Your task to perform on an android device: Add razer blade to the cart on walmart.com Image 0: 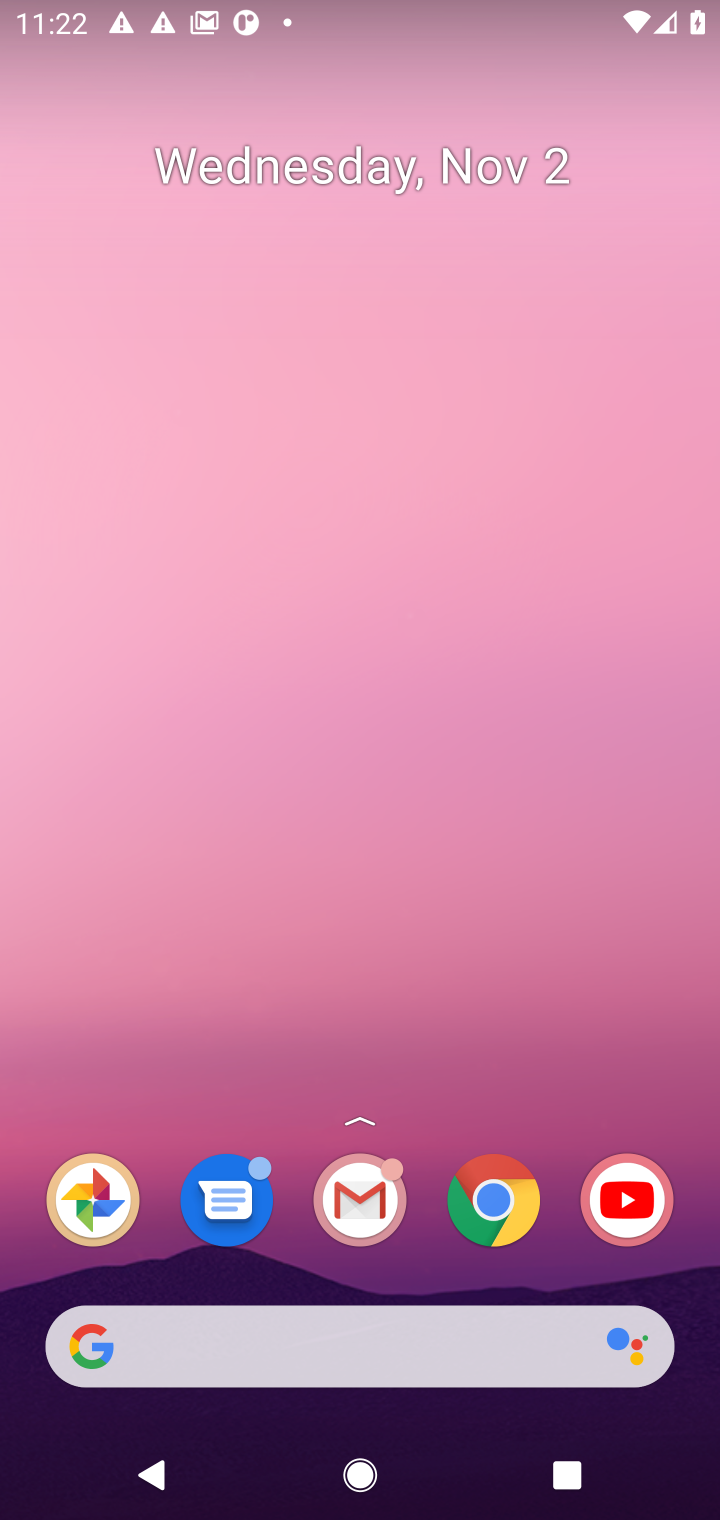
Step 0: click (490, 1195)
Your task to perform on an android device: Add razer blade to the cart on walmart.com Image 1: 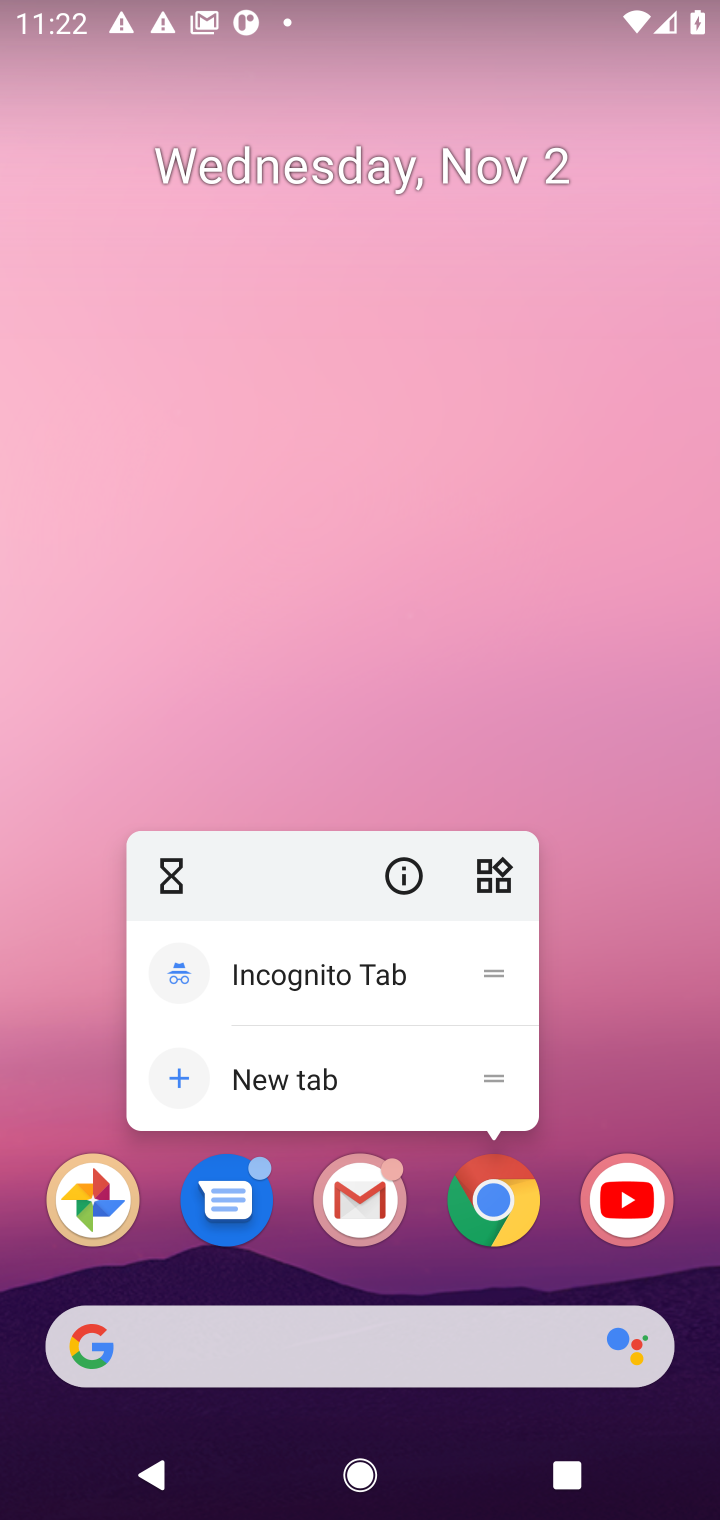
Step 1: click (489, 1193)
Your task to perform on an android device: Add razer blade to the cart on walmart.com Image 2: 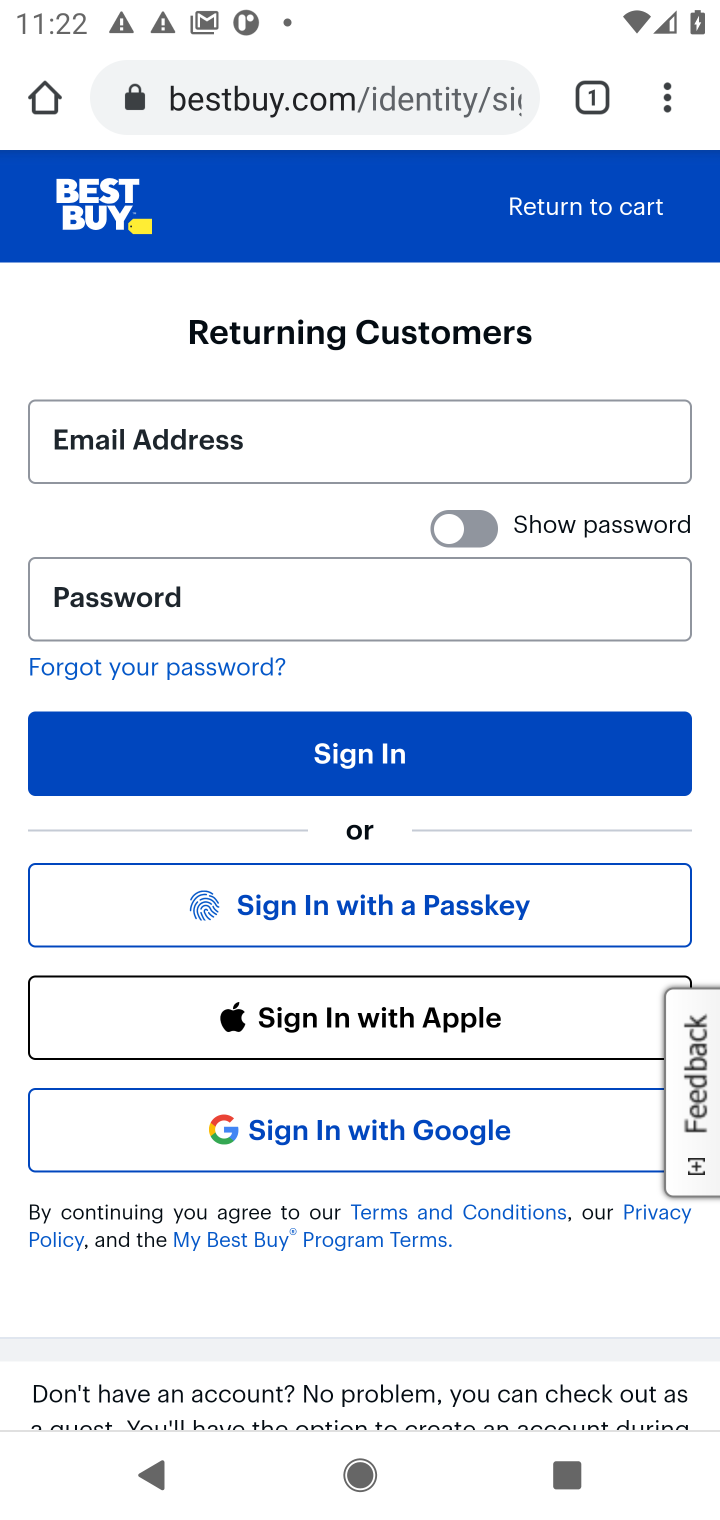
Step 2: click (339, 88)
Your task to perform on an android device: Add razer blade to the cart on walmart.com Image 3: 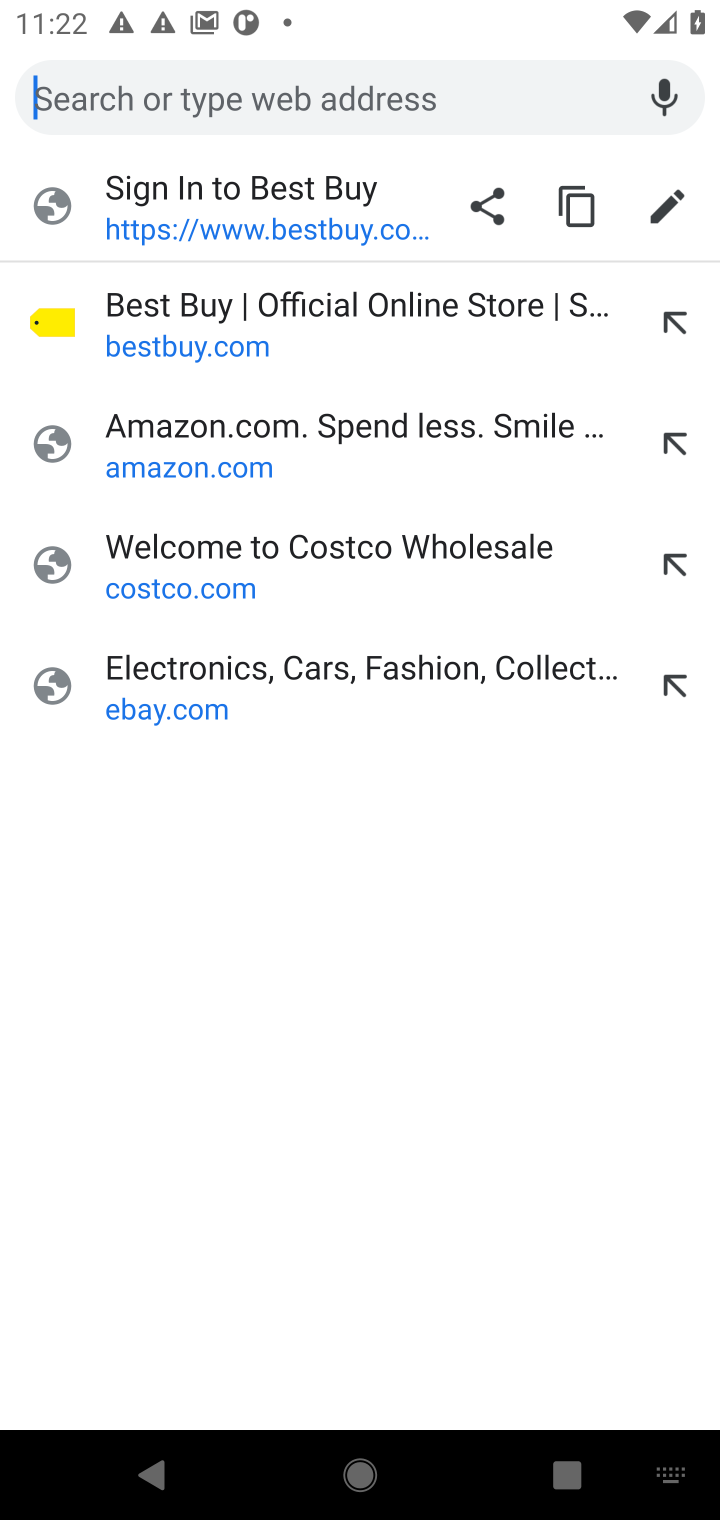
Step 3: type "walmart.com"
Your task to perform on an android device: Add razer blade to the cart on walmart.com Image 4: 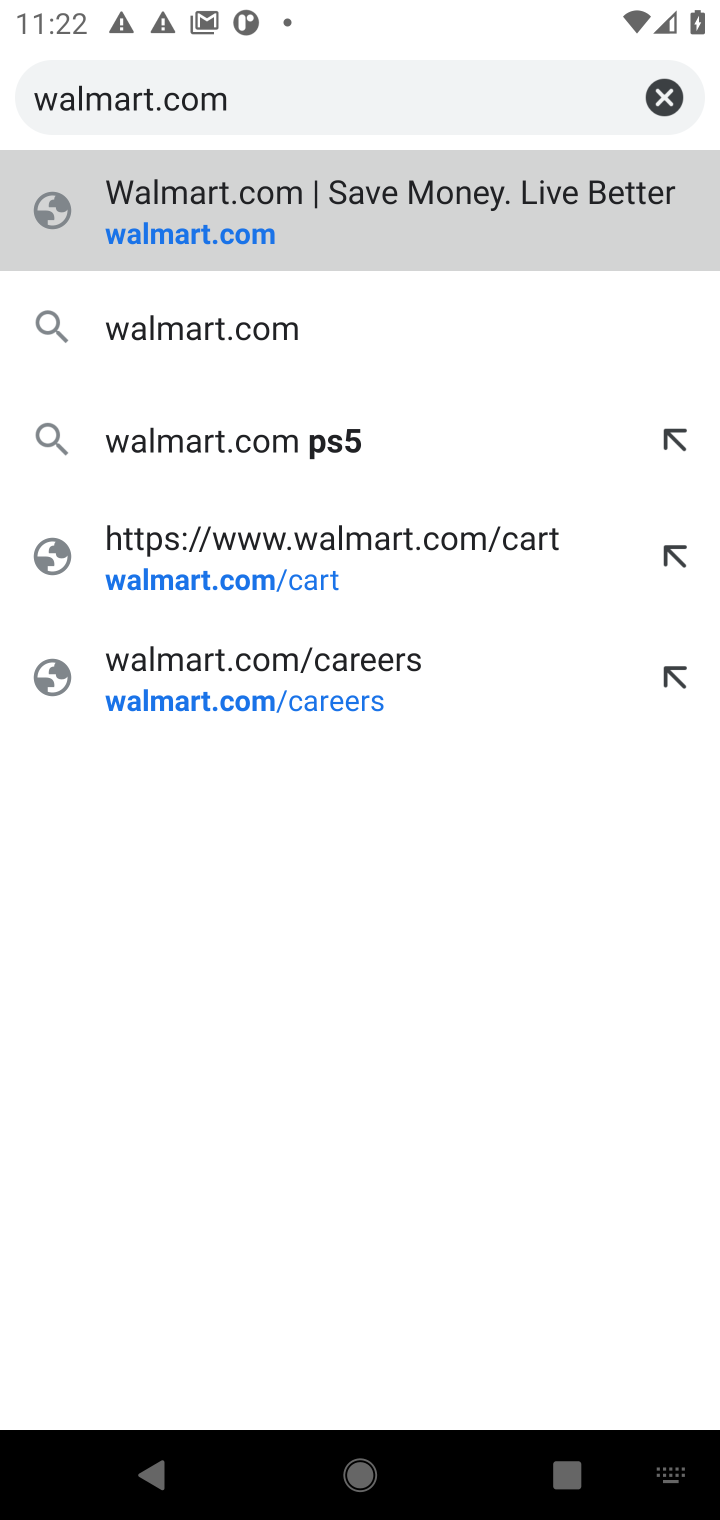
Step 4: press enter
Your task to perform on an android device: Add razer blade to the cart on walmart.com Image 5: 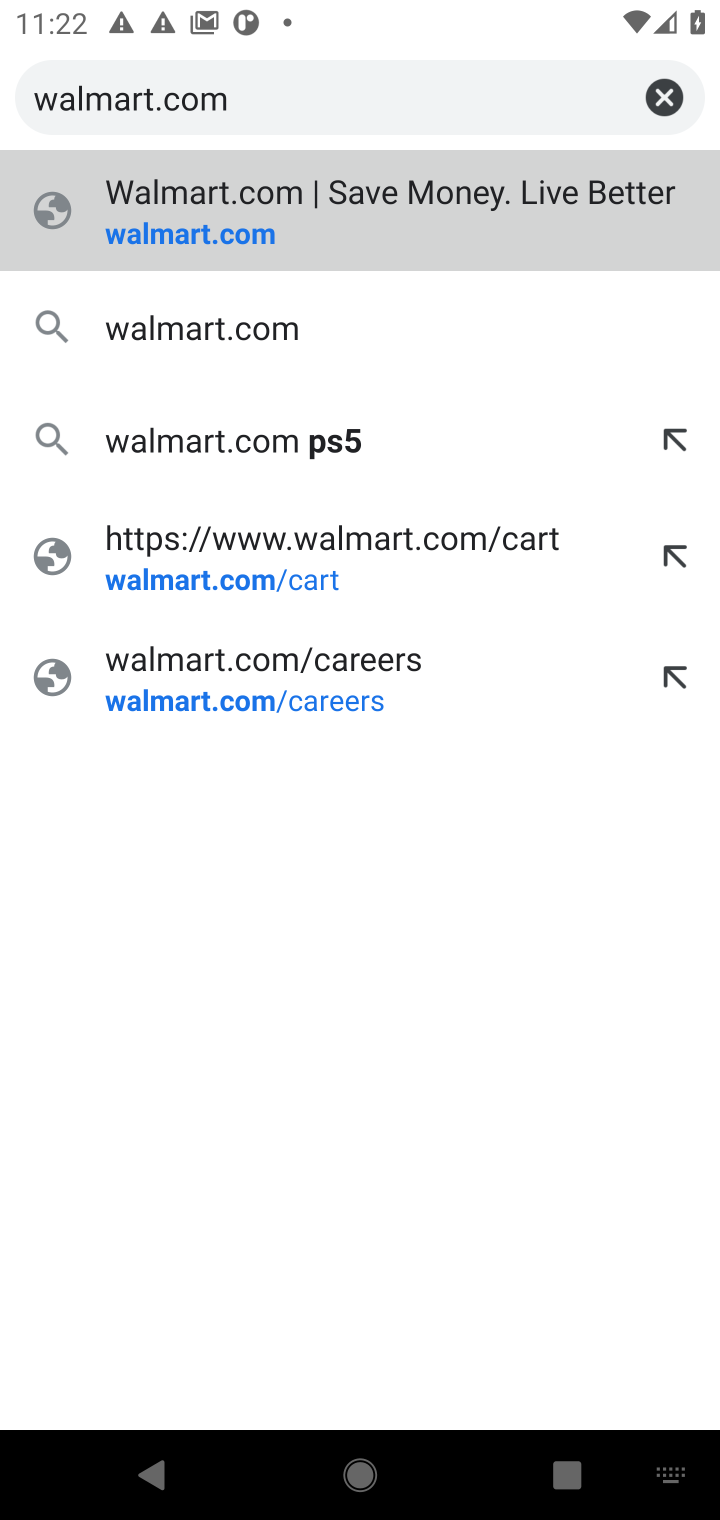
Step 5: type "walmart.com"
Your task to perform on an android device: Add razer blade to the cart on walmart.com Image 6: 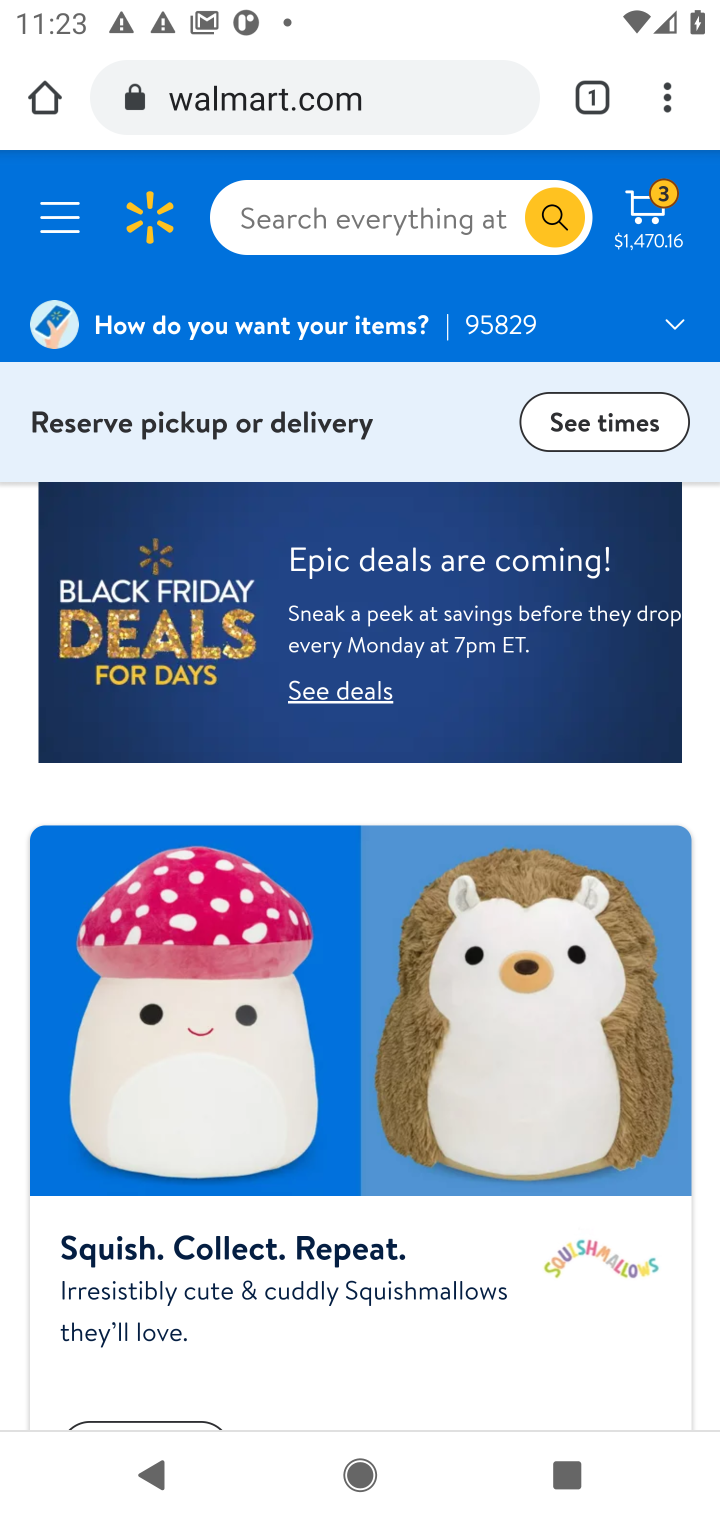
Step 6: click (302, 207)
Your task to perform on an android device: Add razer blade to the cart on walmart.com Image 7: 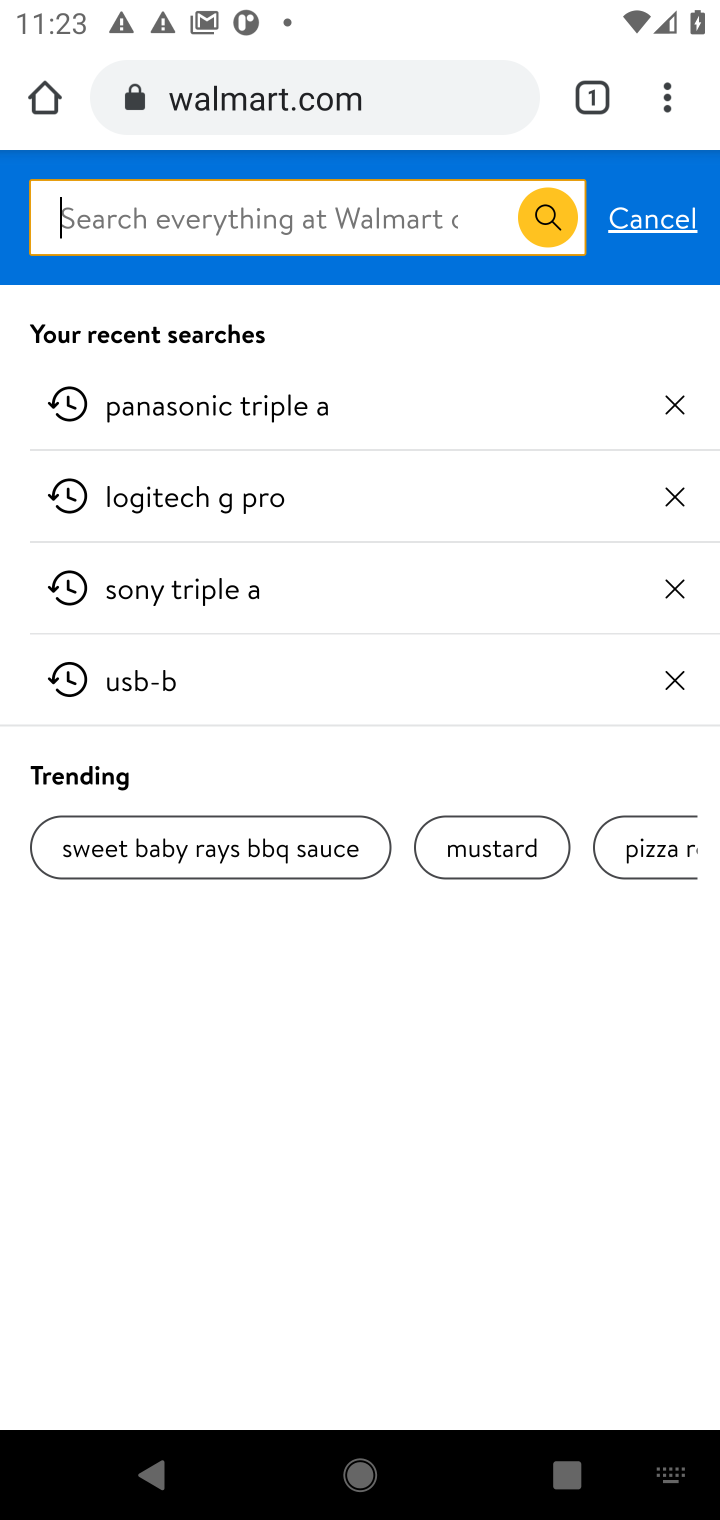
Step 7: type "razer blade"
Your task to perform on an android device: Add razer blade to the cart on walmart.com Image 8: 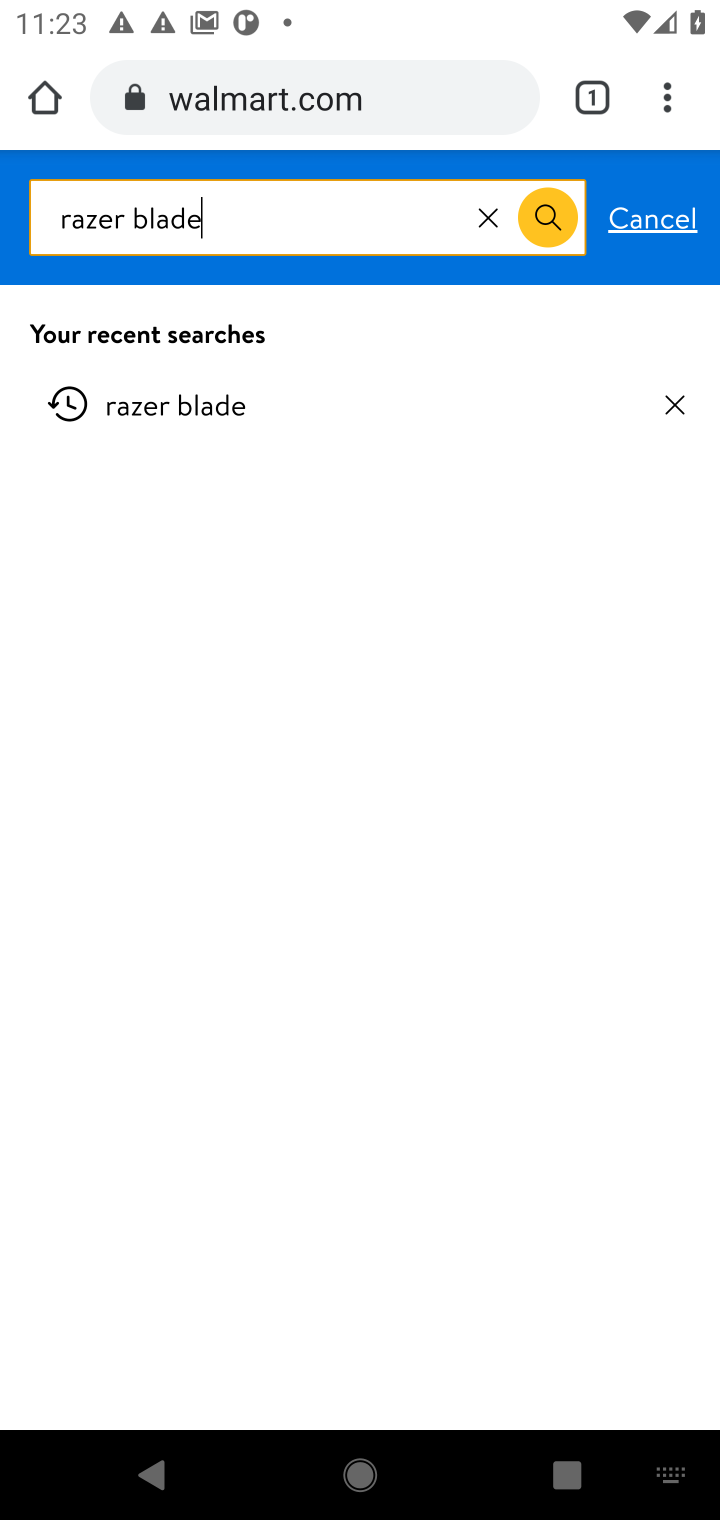
Step 8: press enter
Your task to perform on an android device: Add razer blade to the cart on walmart.com Image 9: 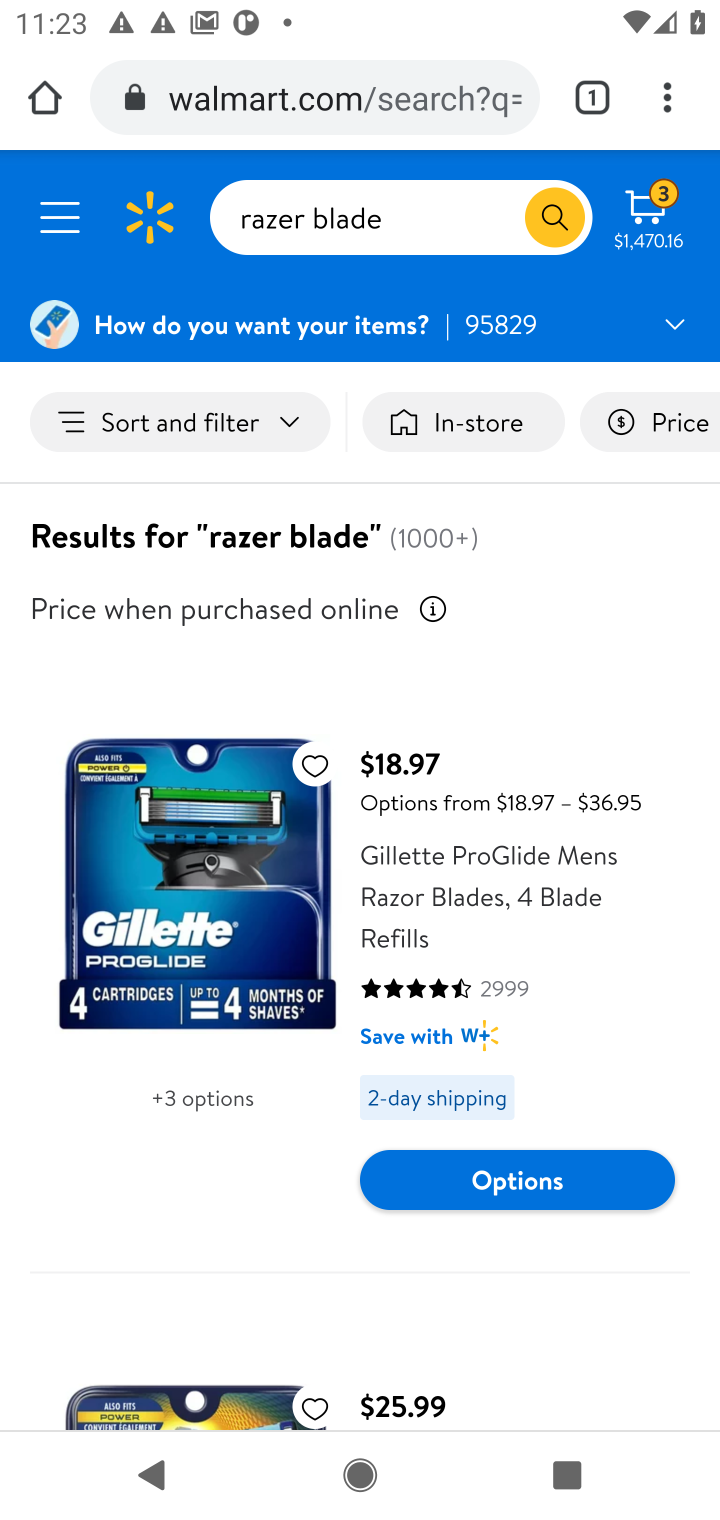
Step 9: click (260, 956)
Your task to perform on an android device: Add razer blade to the cart on walmart.com Image 10: 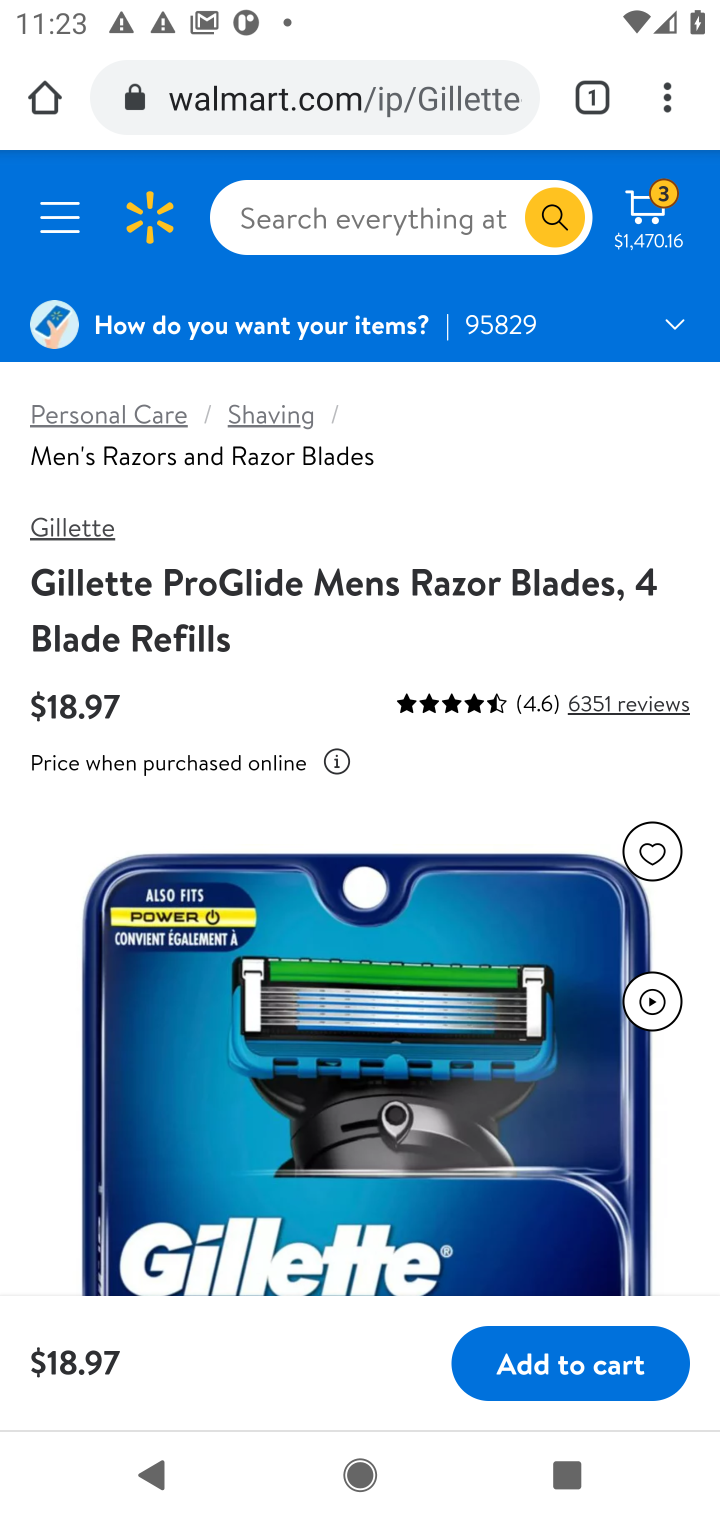
Step 10: click (601, 1375)
Your task to perform on an android device: Add razer blade to the cart on walmart.com Image 11: 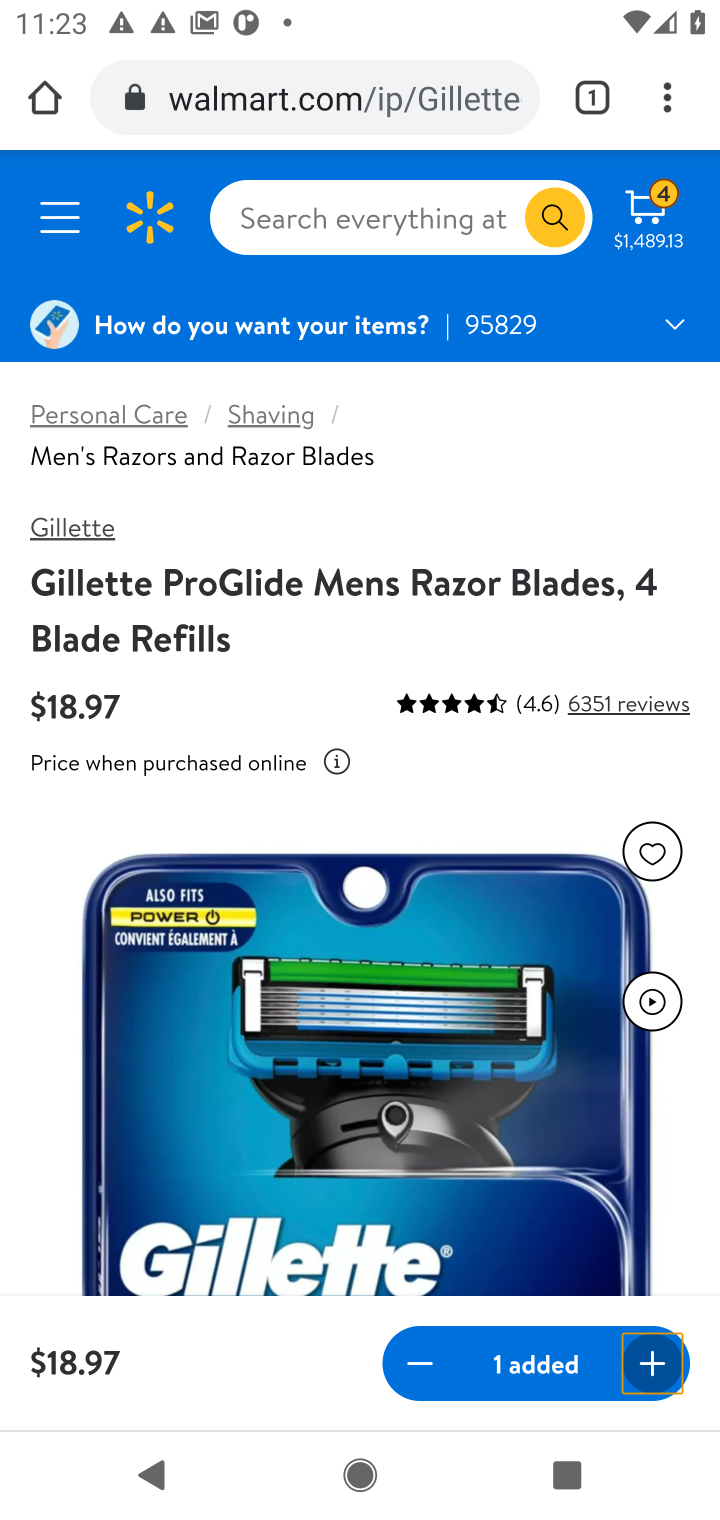
Step 11: task complete